Your task to perform on an android device: open device folders in google photos Image 0: 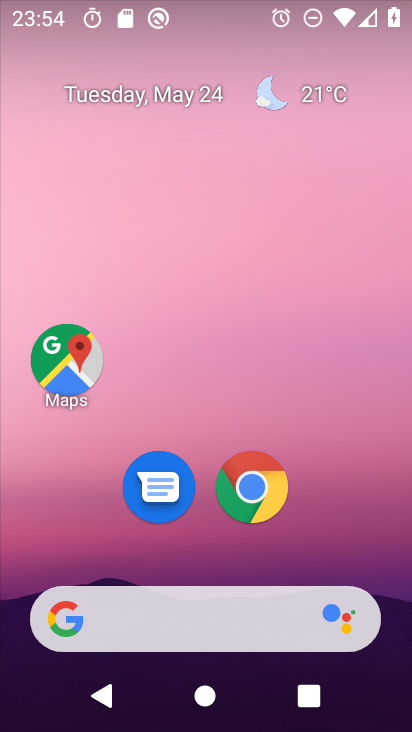
Step 0: drag from (326, 573) to (304, 0)
Your task to perform on an android device: open device folders in google photos Image 1: 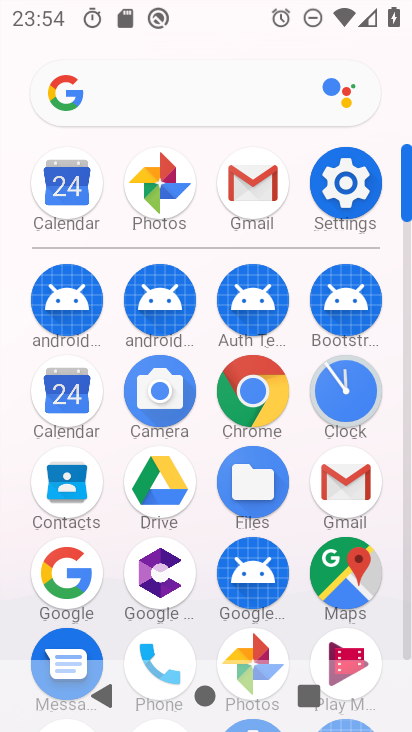
Step 1: click (149, 196)
Your task to perform on an android device: open device folders in google photos Image 2: 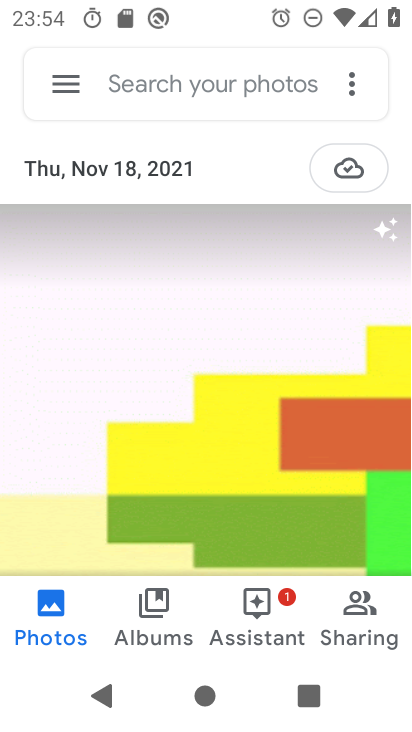
Step 2: click (62, 85)
Your task to perform on an android device: open device folders in google photos Image 3: 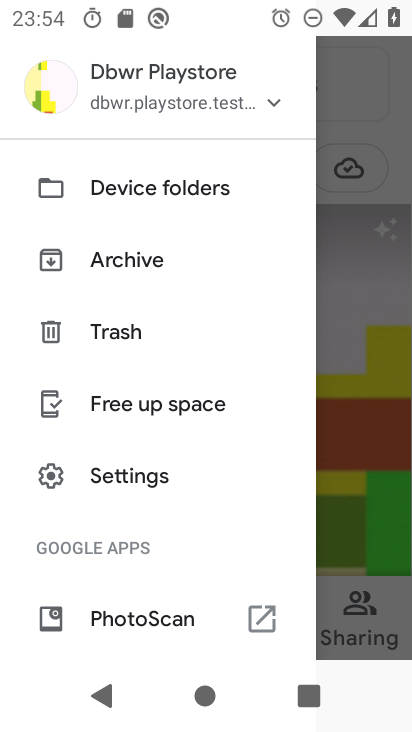
Step 3: click (99, 192)
Your task to perform on an android device: open device folders in google photos Image 4: 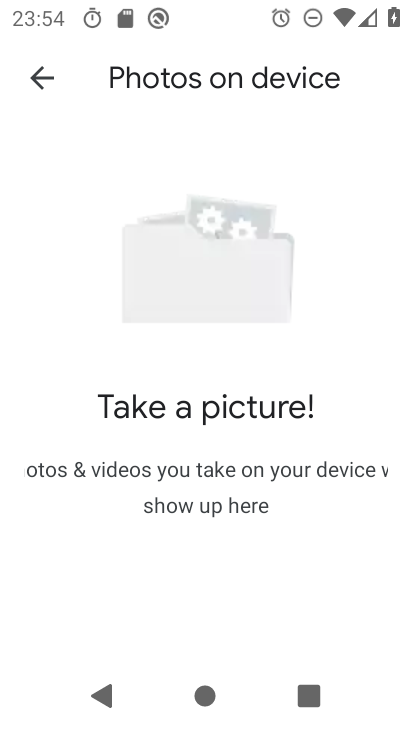
Step 4: task complete